Your task to perform on an android device: check android version Image 0: 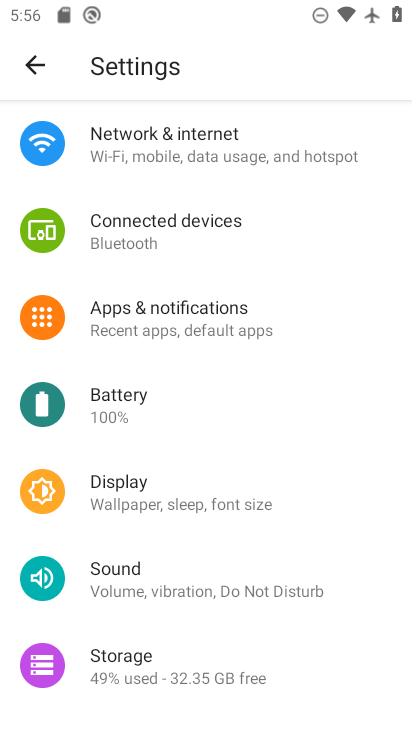
Step 0: drag from (257, 594) to (251, 82)
Your task to perform on an android device: check android version Image 1: 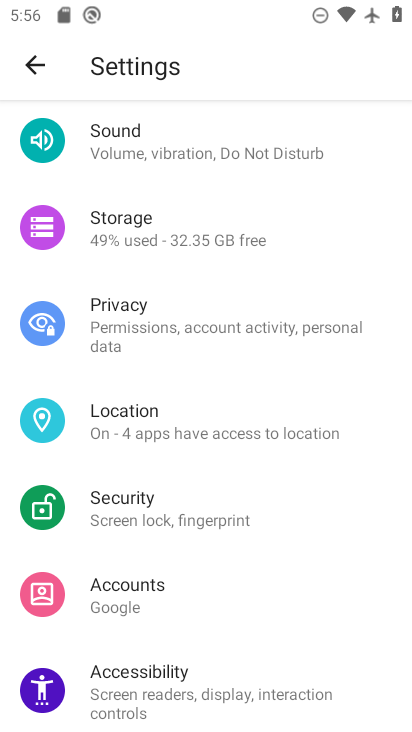
Step 1: drag from (246, 702) to (213, 86)
Your task to perform on an android device: check android version Image 2: 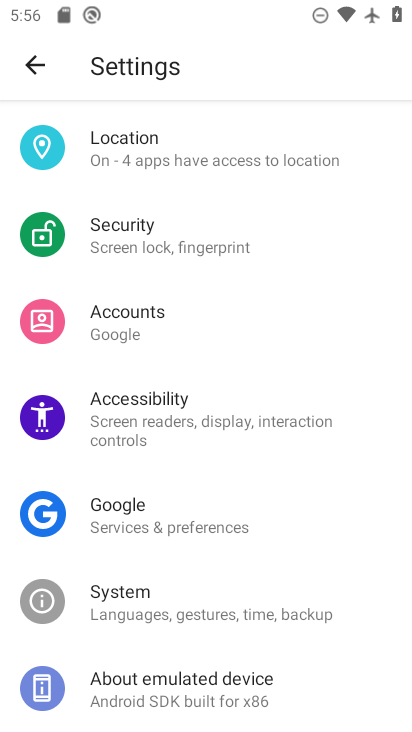
Step 2: click (199, 681)
Your task to perform on an android device: check android version Image 3: 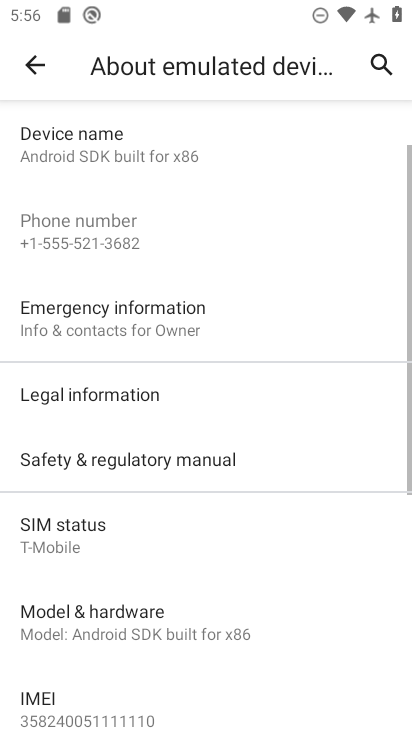
Step 3: task complete